Your task to perform on an android device: turn on the 24-hour format for clock Image 0: 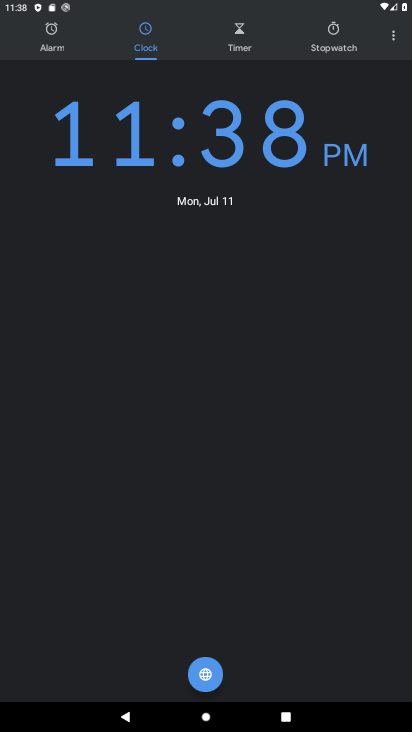
Step 0: press home button
Your task to perform on an android device: turn on the 24-hour format for clock Image 1: 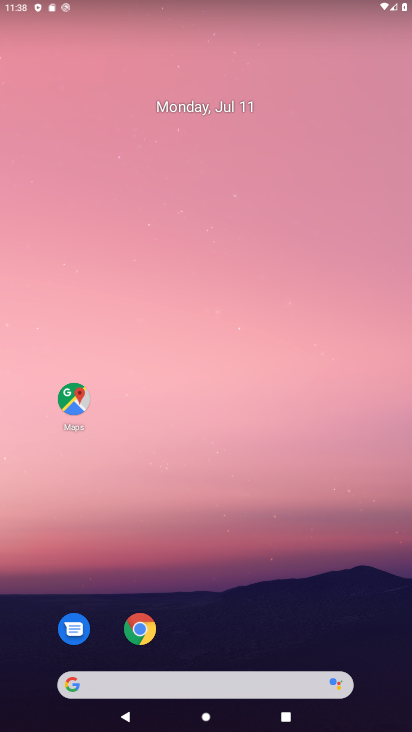
Step 1: drag from (359, 617) to (401, 66)
Your task to perform on an android device: turn on the 24-hour format for clock Image 2: 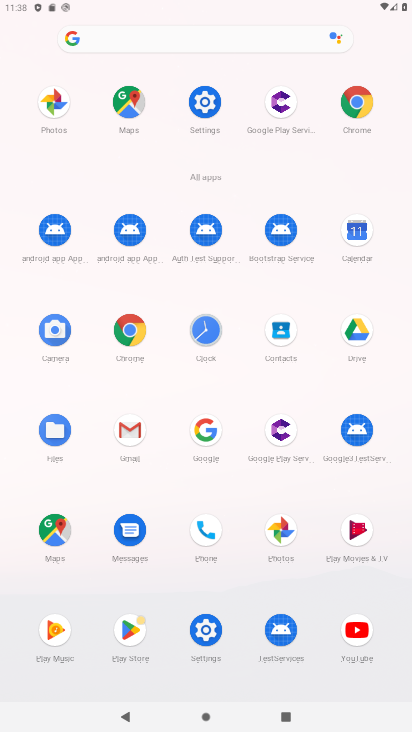
Step 2: click (207, 331)
Your task to perform on an android device: turn on the 24-hour format for clock Image 3: 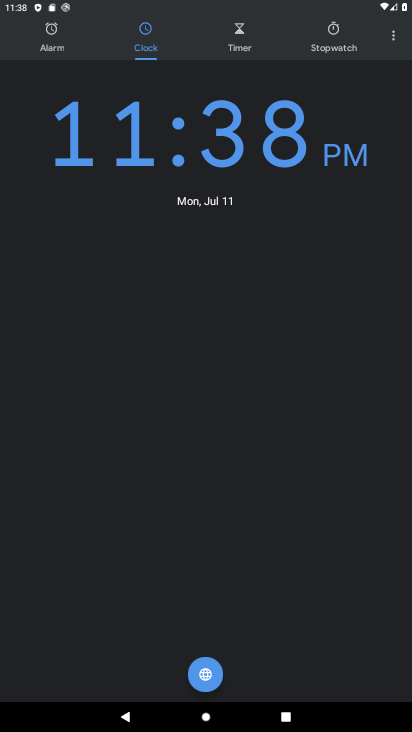
Step 3: click (394, 40)
Your task to perform on an android device: turn on the 24-hour format for clock Image 4: 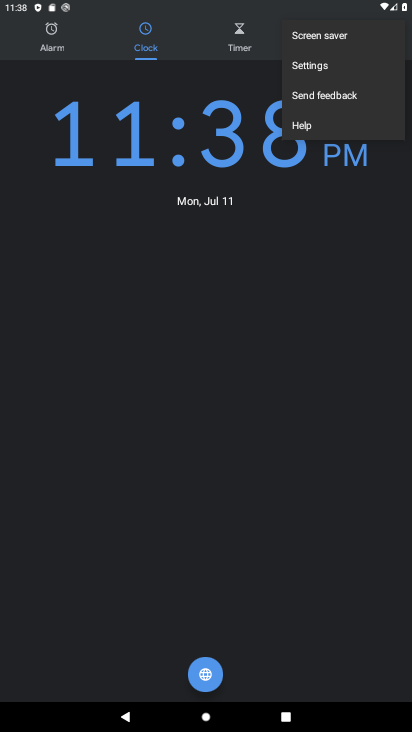
Step 4: click (351, 72)
Your task to perform on an android device: turn on the 24-hour format for clock Image 5: 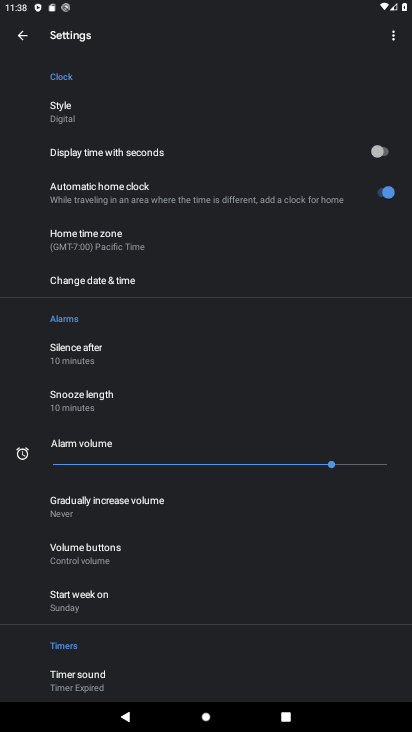
Step 5: drag from (266, 378) to (269, 329)
Your task to perform on an android device: turn on the 24-hour format for clock Image 6: 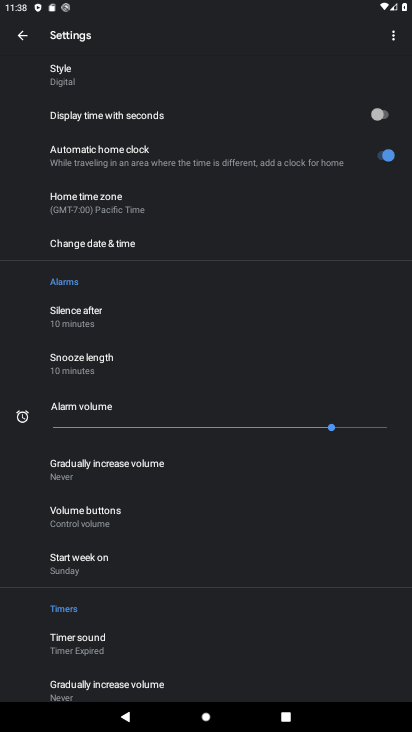
Step 6: drag from (275, 382) to (294, 293)
Your task to perform on an android device: turn on the 24-hour format for clock Image 7: 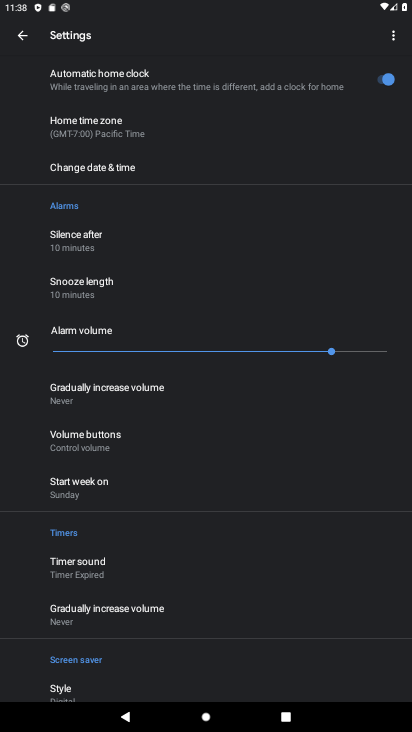
Step 7: drag from (290, 362) to (290, 235)
Your task to perform on an android device: turn on the 24-hour format for clock Image 8: 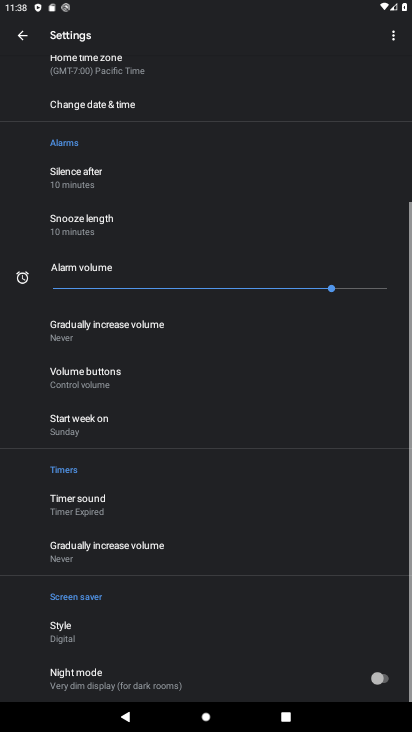
Step 8: drag from (294, 212) to (289, 271)
Your task to perform on an android device: turn on the 24-hour format for clock Image 9: 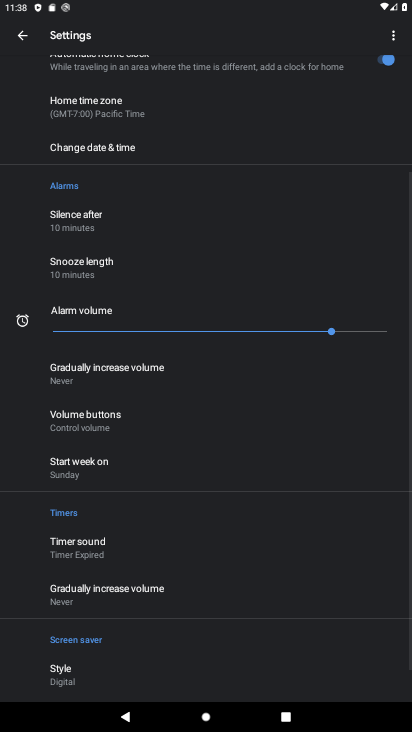
Step 9: drag from (286, 216) to (275, 314)
Your task to perform on an android device: turn on the 24-hour format for clock Image 10: 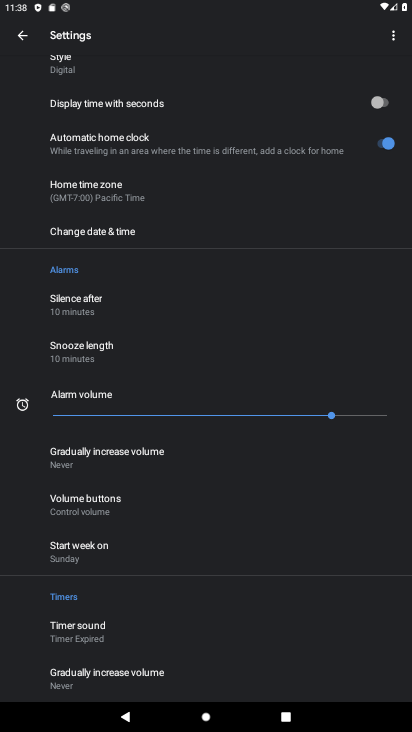
Step 10: drag from (285, 226) to (274, 329)
Your task to perform on an android device: turn on the 24-hour format for clock Image 11: 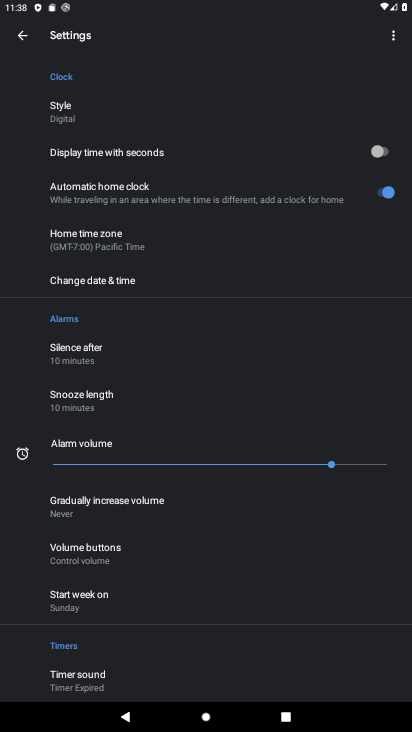
Step 11: click (148, 275)
Your task to perform on an android device: turn on the 24-hour format for clock Image 12: 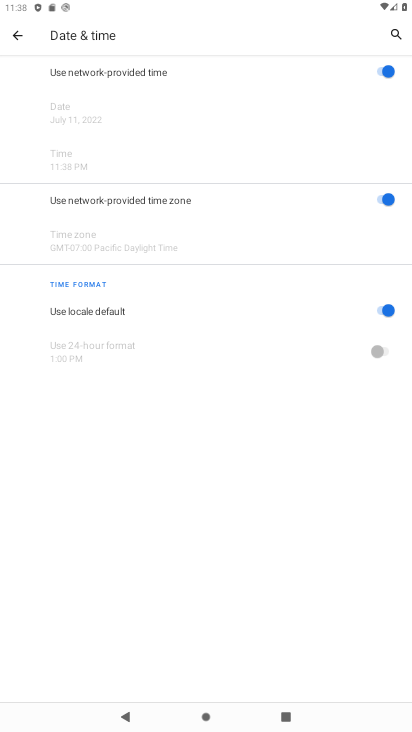
Step 12: click (380, 311)
Your task to perform on an android device: turn on the 24-hour format for clock Image 13: 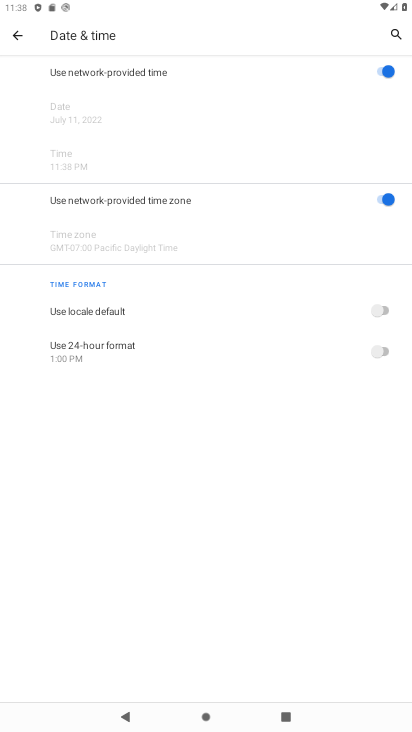
Step 13: click (379, 350)
Your task to perform on an android device: turn on the 24-hour format for clock Image 14: 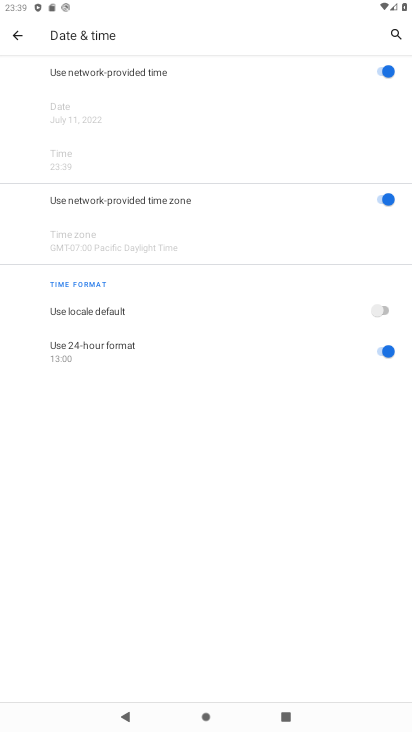
Step 14: task complete